Your task to perform on an android device: turn on notifications settings in the gmail app Image 0: 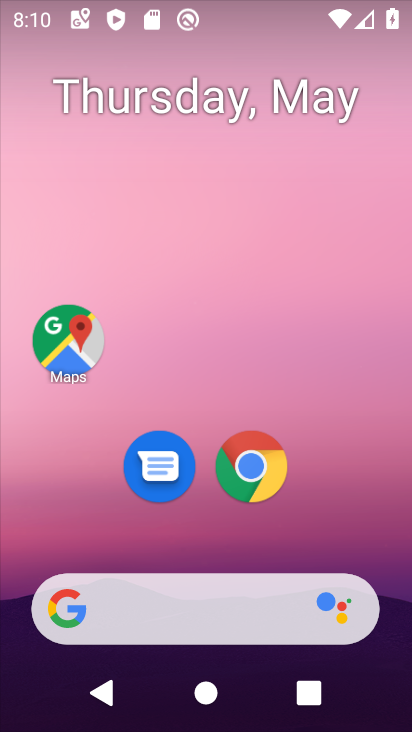
Step 0: drag from (361, 498) to (287, 13)
Your task to perform on an android device: turn on notifications settings in the gmail app Image 1: 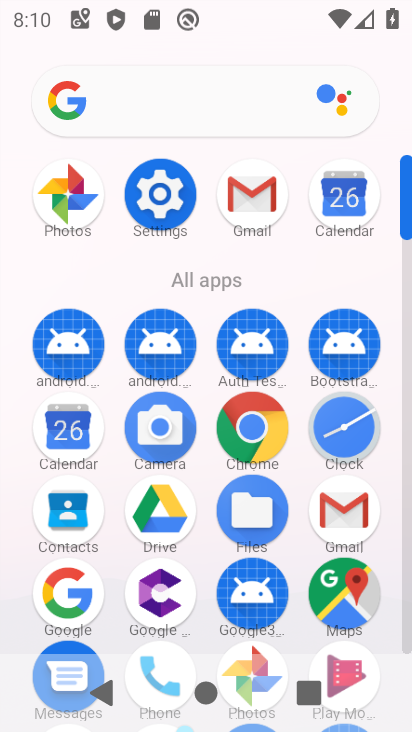
Step 1: click (239, 211)
Your task to perform on an android device: turn on notifications settings in the gmail app Image 2: 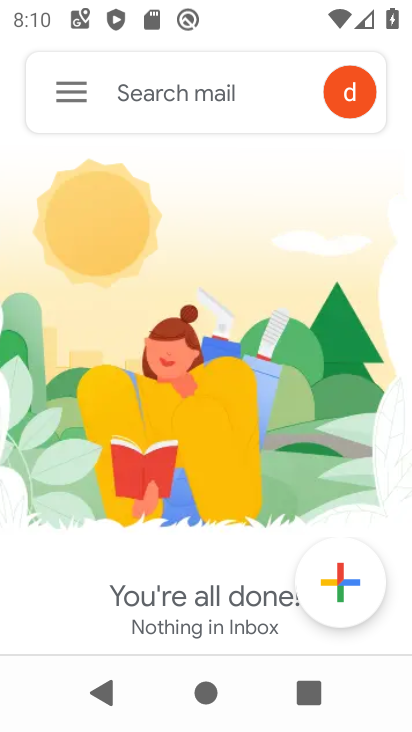
Step 2: click (61, 92)
Your task to perform on an android device: turn on notifications settings in the gmail app Image 3: 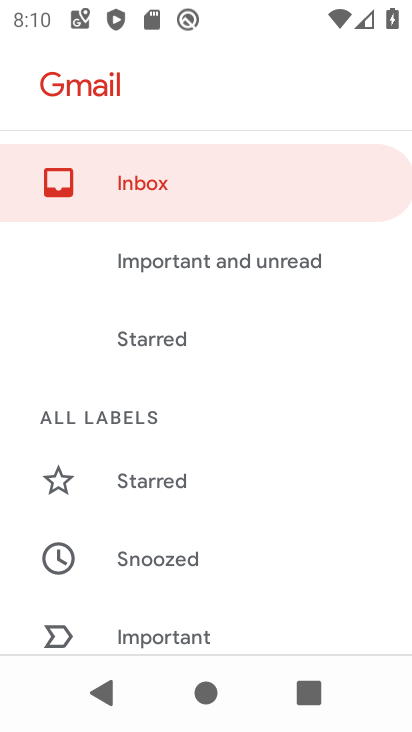
Step 3: drag from (236, 513) to (221, 20)
Your task to perform on an android device: turn on notifications settings in the gmail app Image 4: 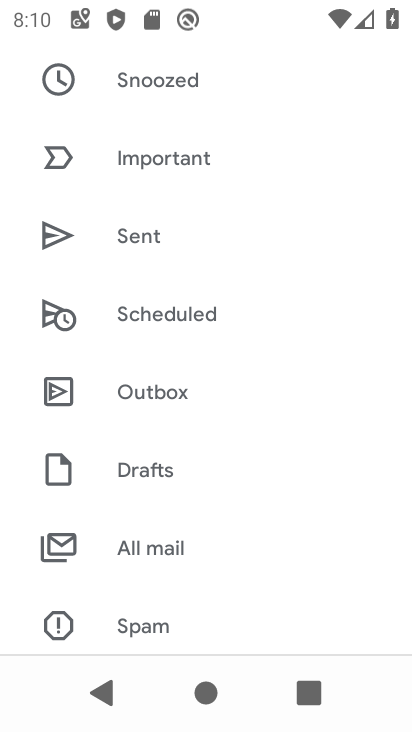
Step 4: drag from (215, 536) to (237, 13)
Your task to perform on an android device: turn on notifications settings in the gmail app Image 5: 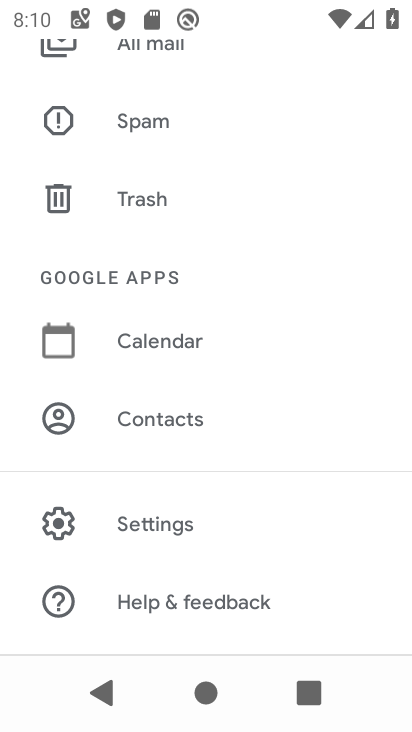
Step 5: click (182, 533)
Your task to perform on an android device: turn on notifications settings in the gmail app Image 6: 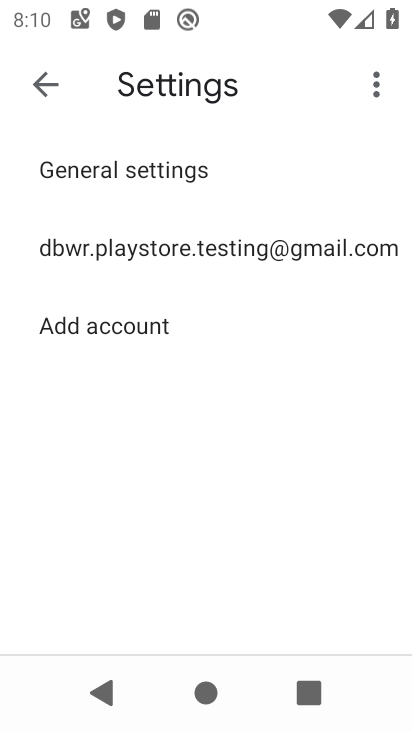
Step 6: click (82, 177)
Your task to perform on an android device: turn on notifications settings in the gmail app Image 7: 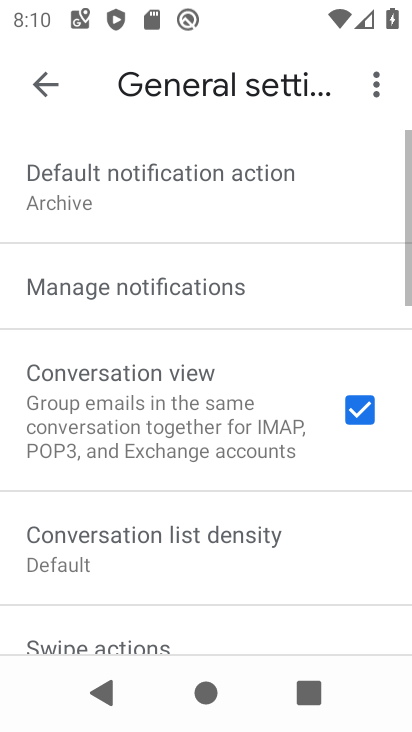
Step 7: click (170, 281)
Your task to perform on an android device: turn on notifications settings in the gmail app Image 8: 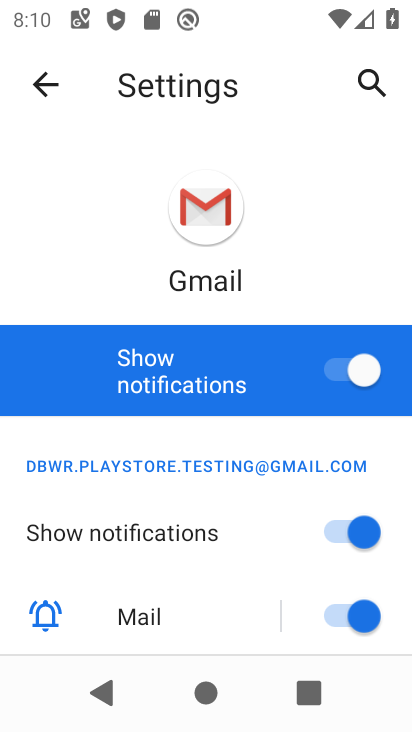
Step 8: task complete